Your task to perform on an android device: visit the assistant section in the google photos Image 0: 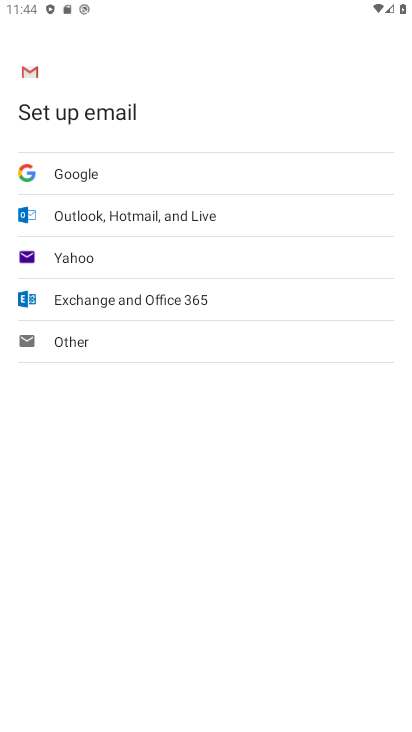
Step 0: press home button
Your task to perform on an android device: visit the assistant section in the google photos Image 1: 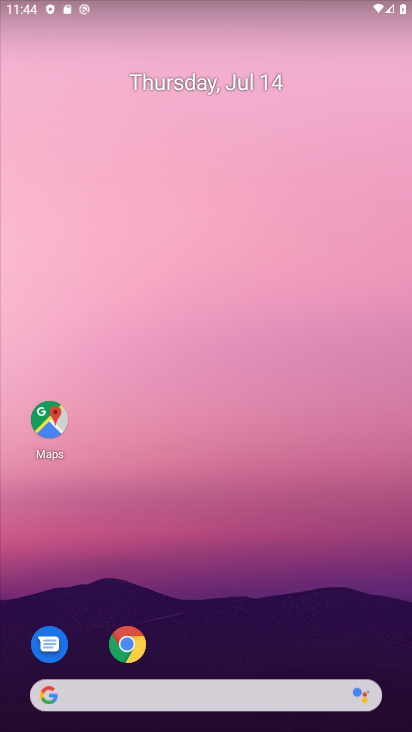
Step 1: click (203, 109)
Your task to perform on an android device: visit the assistant section in the google photos Image 2: 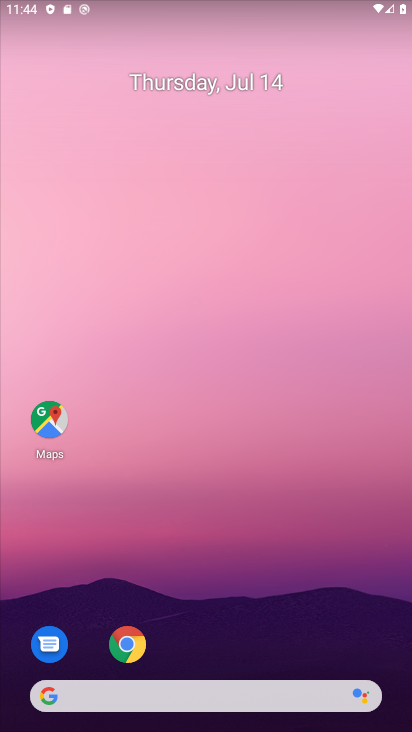
Step 2: drag from (198, 650) to (214, 8)
Your task to perform on an android device: visit the assistant section in the google photos Image 3: 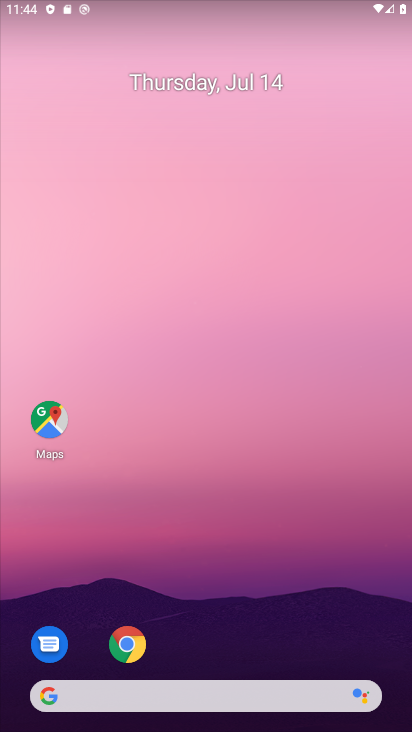
Step 3: drag from (232, 658) to (135, 204)
Your task to perform on an android device: visit the assistant section in the google photos Image 4: 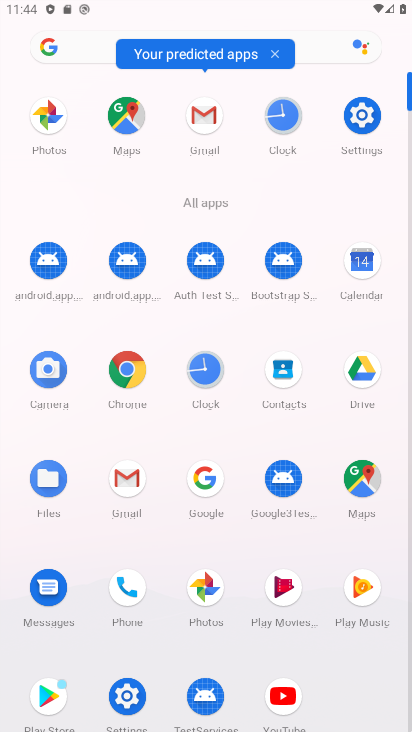
Step 4: click (59, 113)
Your task to perform on an android device: visit the assistant section in the google photos Image 5: 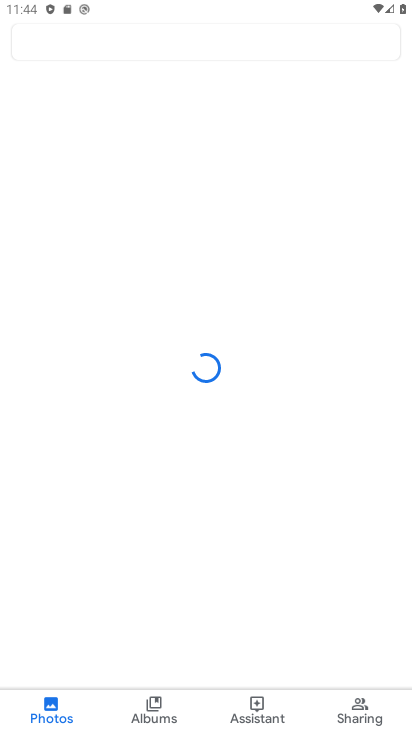
Step 5: click (238, 705)
Your task to perform on an android device: visit the assistant section in the google photos Image 6: 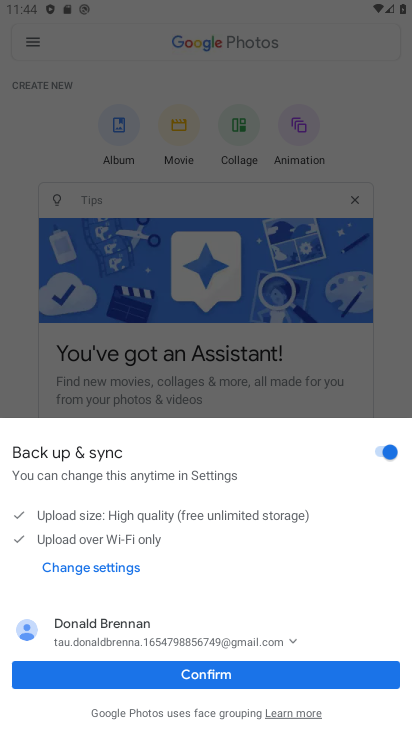
Step 6: click (246, 679)
Your task to perform on an android device: visit the assistant section in the google photos Image 7: 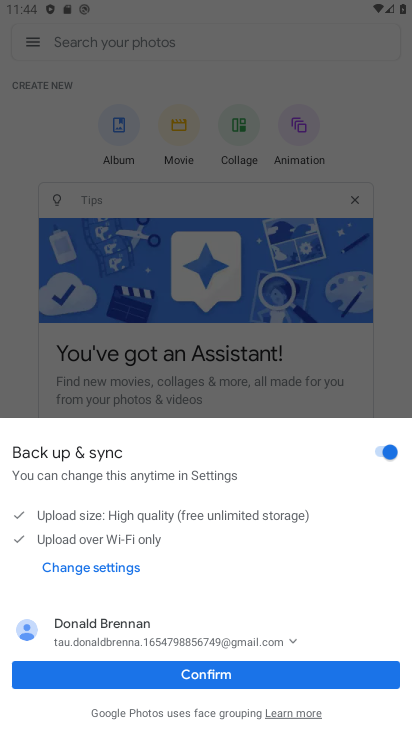
Step 7: click (246, 679)
Your task to perform on an android device: visit the assistant section in the google photos Image 8: 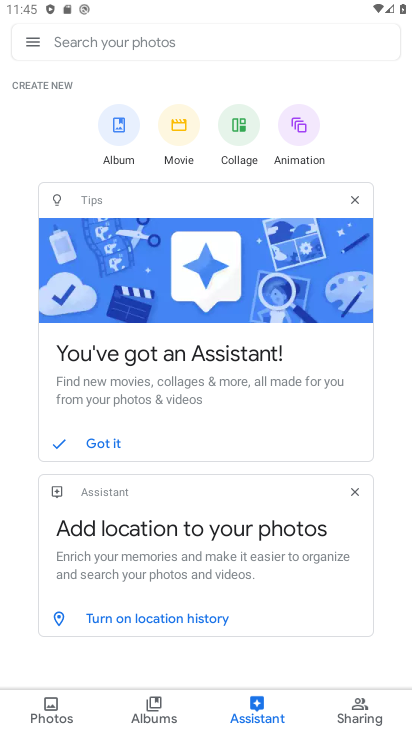
Step 8: task complete